Your task to perform on an android device: Open Google Chrome and click the shortcut for Amazon.com Image 0: 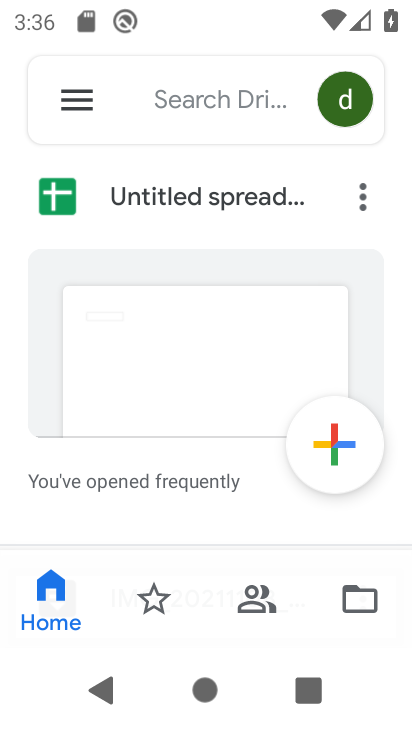
Step 0: press home button
Your task to perform on an android device: Open Google Chrome and click the shortcut for Amazon.com Image 1: 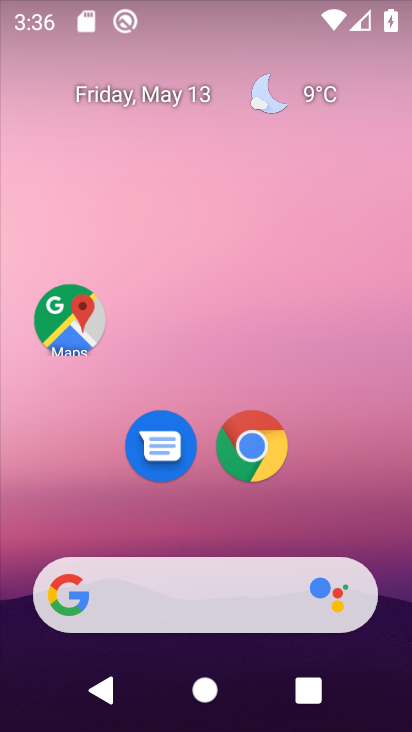
Step 1: click (250, 456)
Your task to perform on an android device: Open Google Chrome and click the shortcut for Amazon.com Image 2: 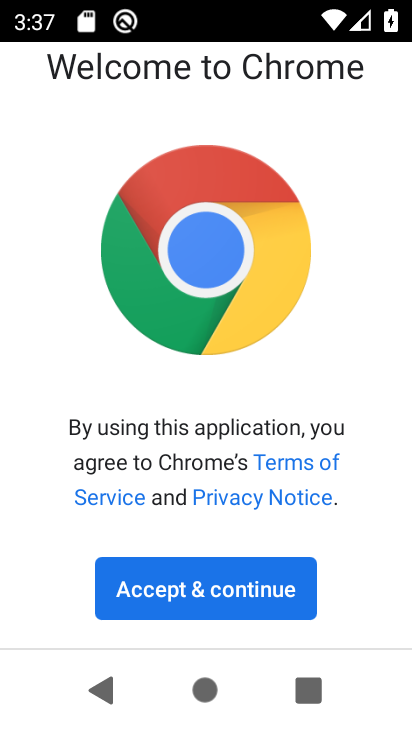
Step 2: click (196, 572)
Your task to perform on an android device: Open Google Chrome and click the shortcut for Amazon.com Image 3: 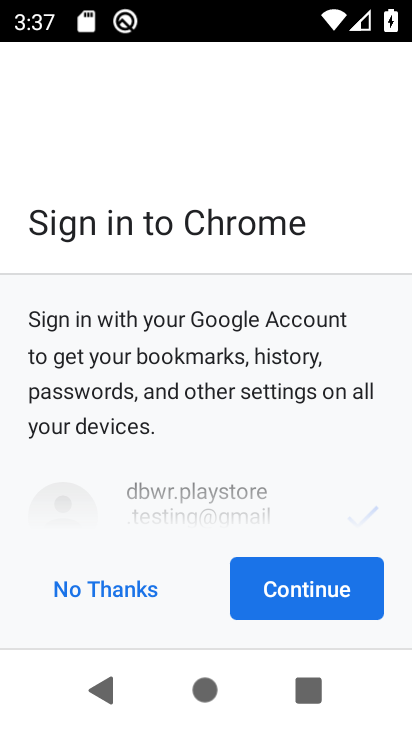
Step 3: click (289, 588)
Your task to perform on an android device: Open Google Chrome and click the shortcut for Amazon.com Image 4: 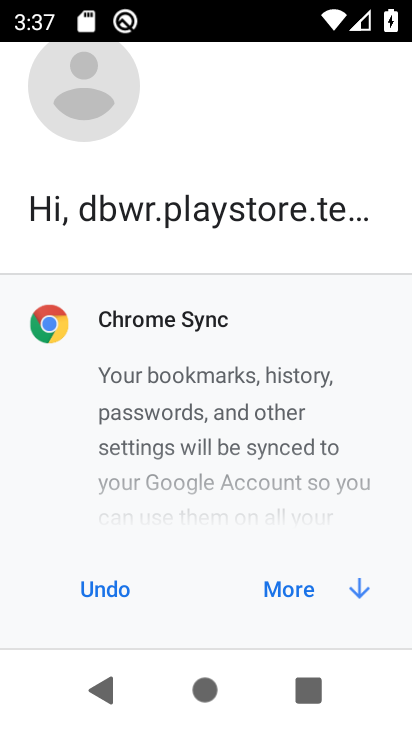
Step 4: click (293, 578)
Your task to perform on an android device: Open Google Chrome and click the shortcut for Amazon.com Image 5: 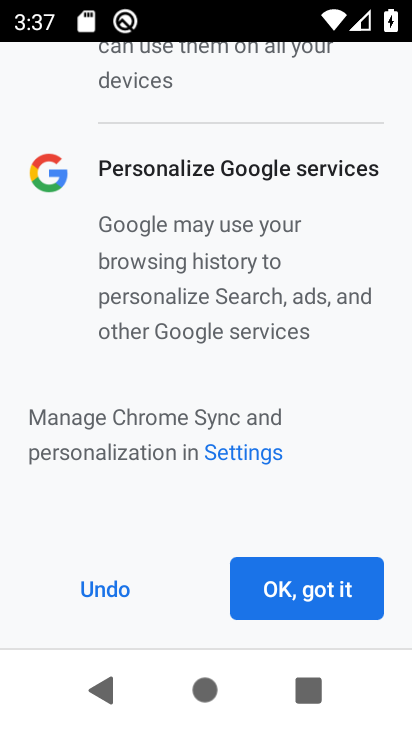
Step 5: click (293, 578)
Your task to perform on an android device: Open Google Chrome and click the shortcut for Amazon.com Image 6: 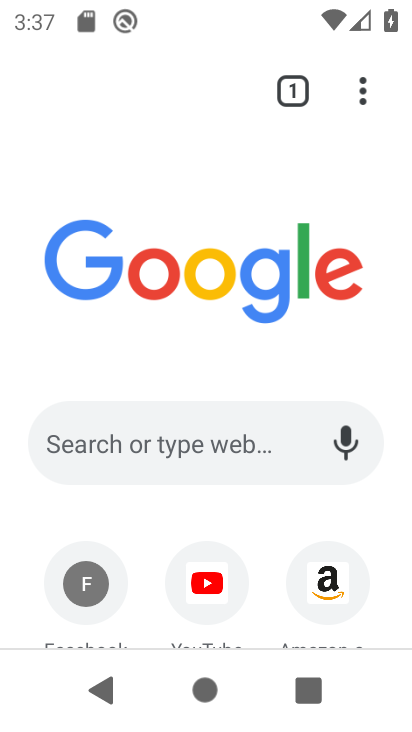
Step 6: click (309, 577)
Your task to perform on an android device: Open Google Chrome and click the shortcut for Amazon.com Image 7: 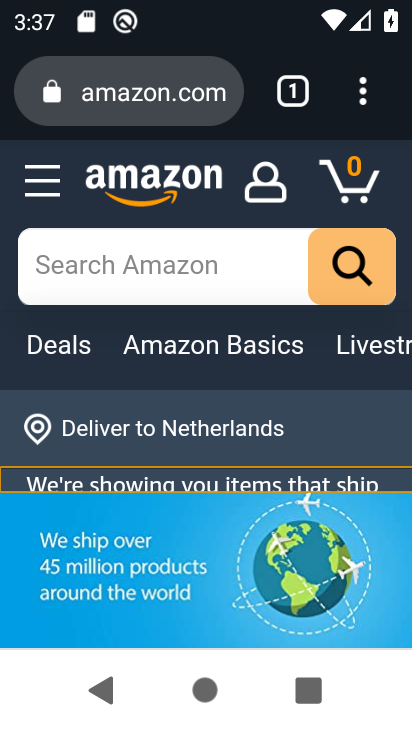
Step 7: task complete